Your task to perform on an android device: turn on notifications settings in the gmail app Image 0: 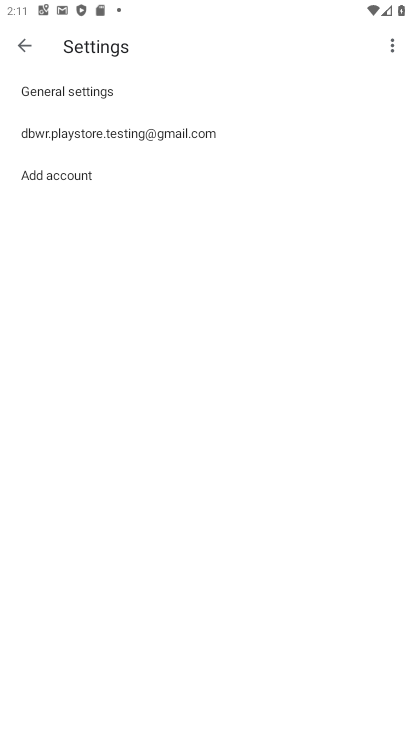
Step 0: press home button
Your task to perform on an android device: turn on notifications settings in the gmail app Image 1: 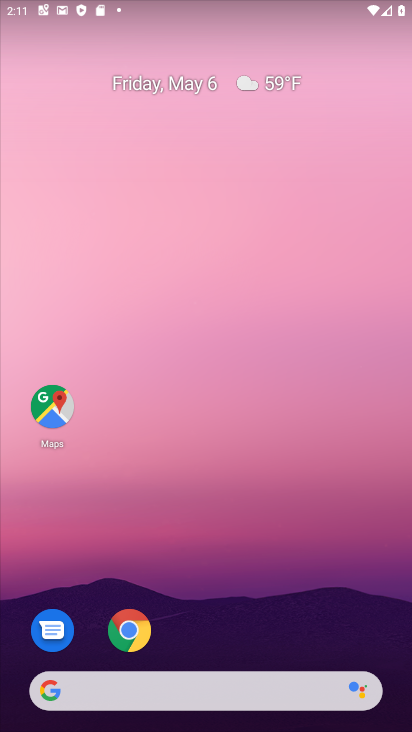
Step 1: drag from (199, 618) to (155, 135)
Your task to perform on an android device: turn on notifications settings in the gmail app Image 2: 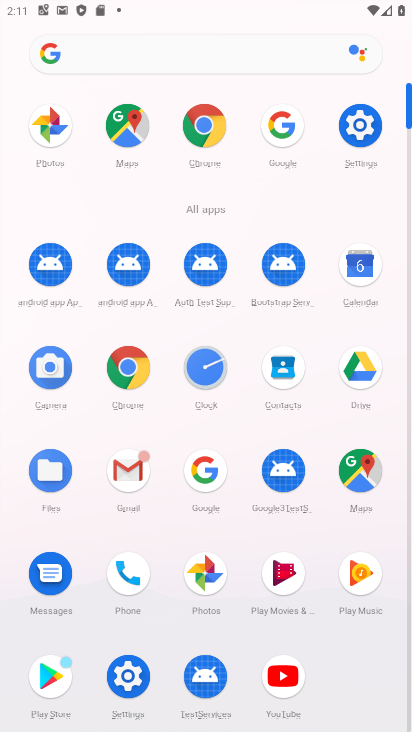
Step 2: click (138, 449)
Your task to perform on an android device: turn on notifications settings in the gmail app Image 3: 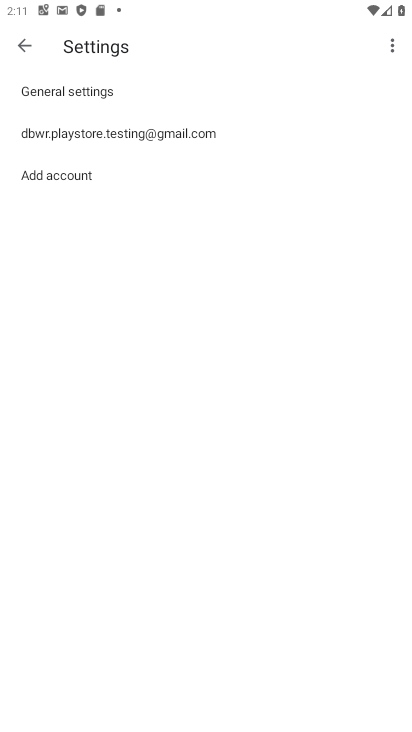
Step 3: click (115, 120)
Your task to perform on an android device: turn on notifications settings in the gmail app Image 4: 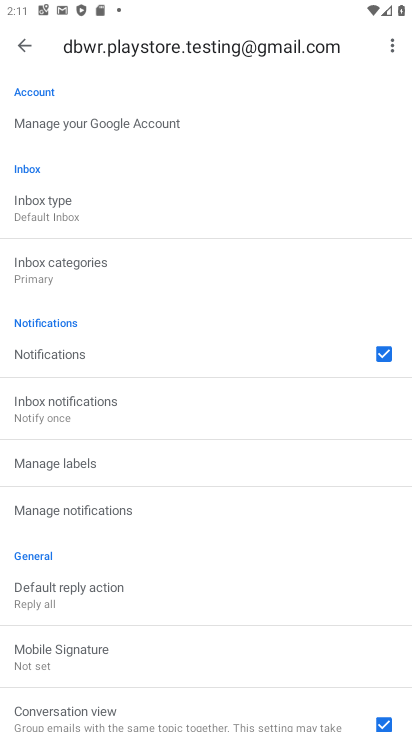
Step 4: drag from (143, 649) to (137, 466)
Your task to perform on an android device: turn on notifications settings in the gmail app Image 5: 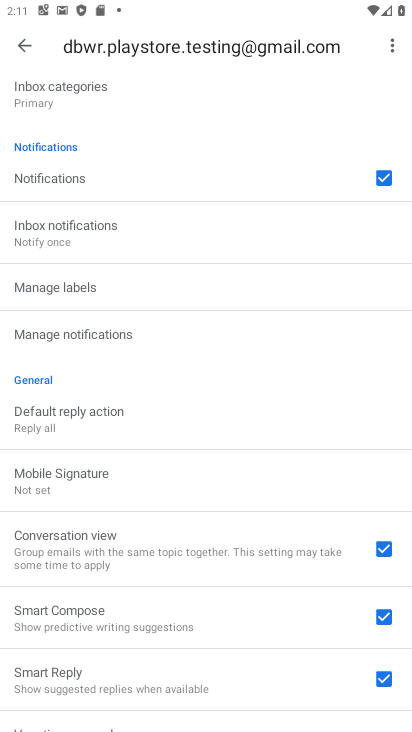
Step 5: click (59, 339)
Your task to perform on an android device: turn on notifications settings in the gmail app Image 6: 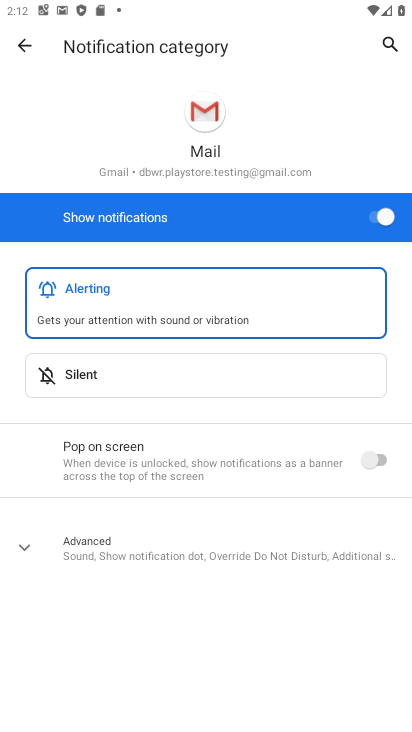
Step 6: task complete